Your task to perform on an android device: turn on wifi Image 0: 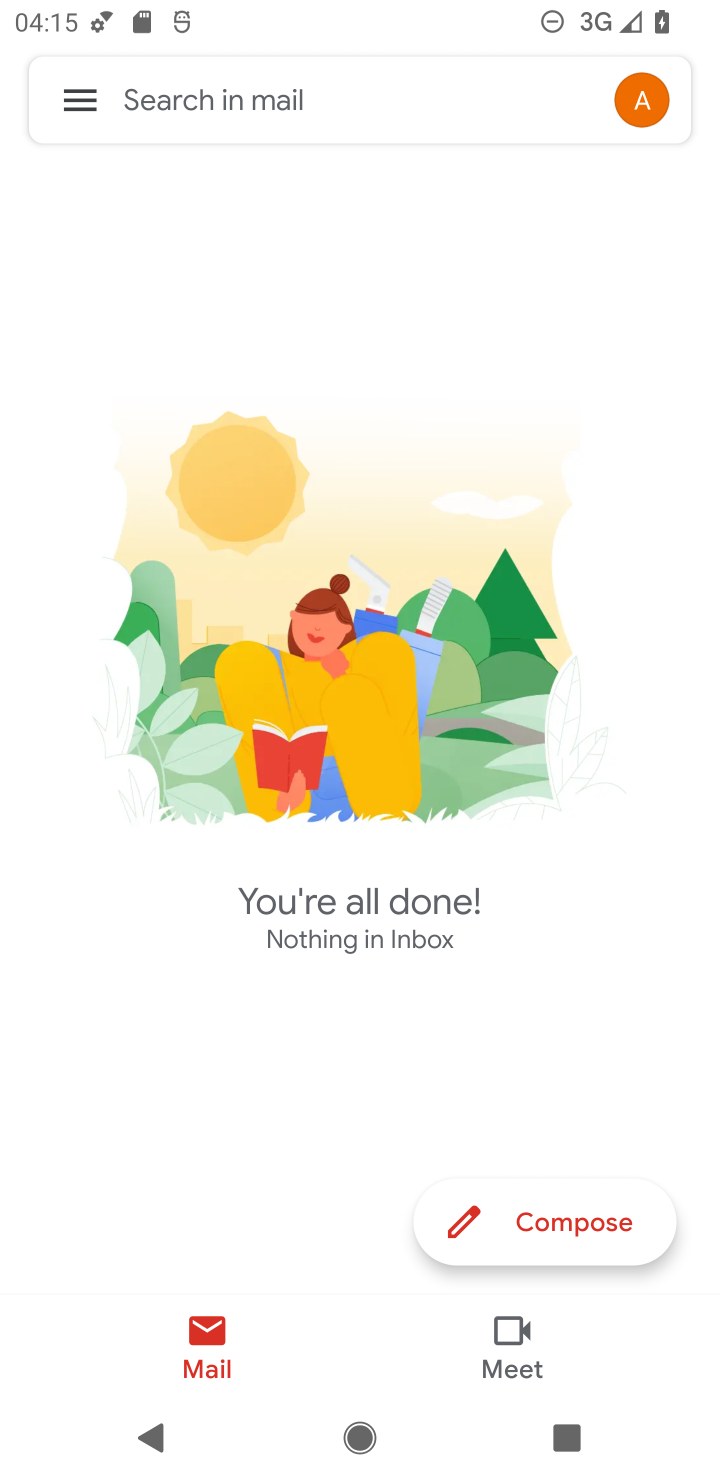
Step 0: press home button
Your task to perform on an android device: turn on wifi Image 1: 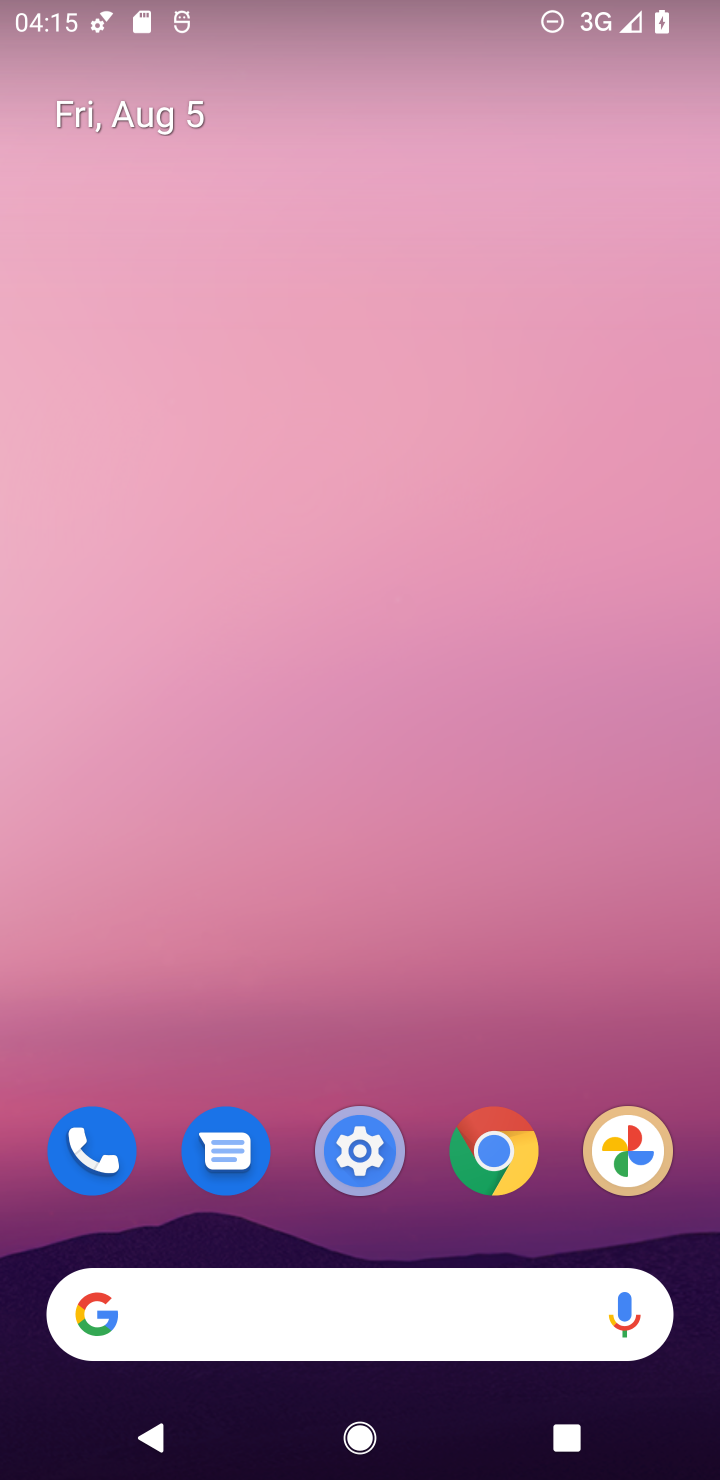
Step 1: click (355, 1123)
Your task to perform on an android device: turn on wifi Image 2: 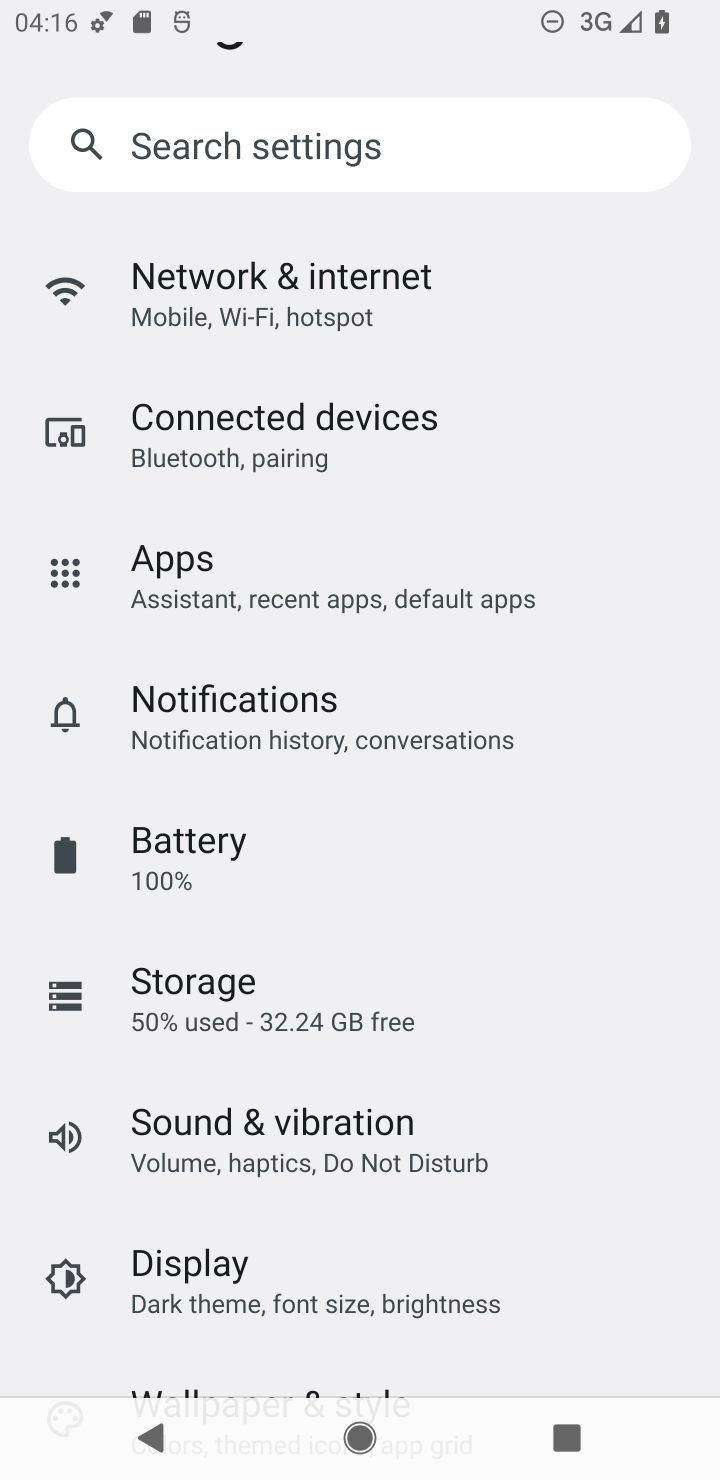
Step 2: click (141, 313)
Your task to perform on an android device: turn on wifi Image 3: 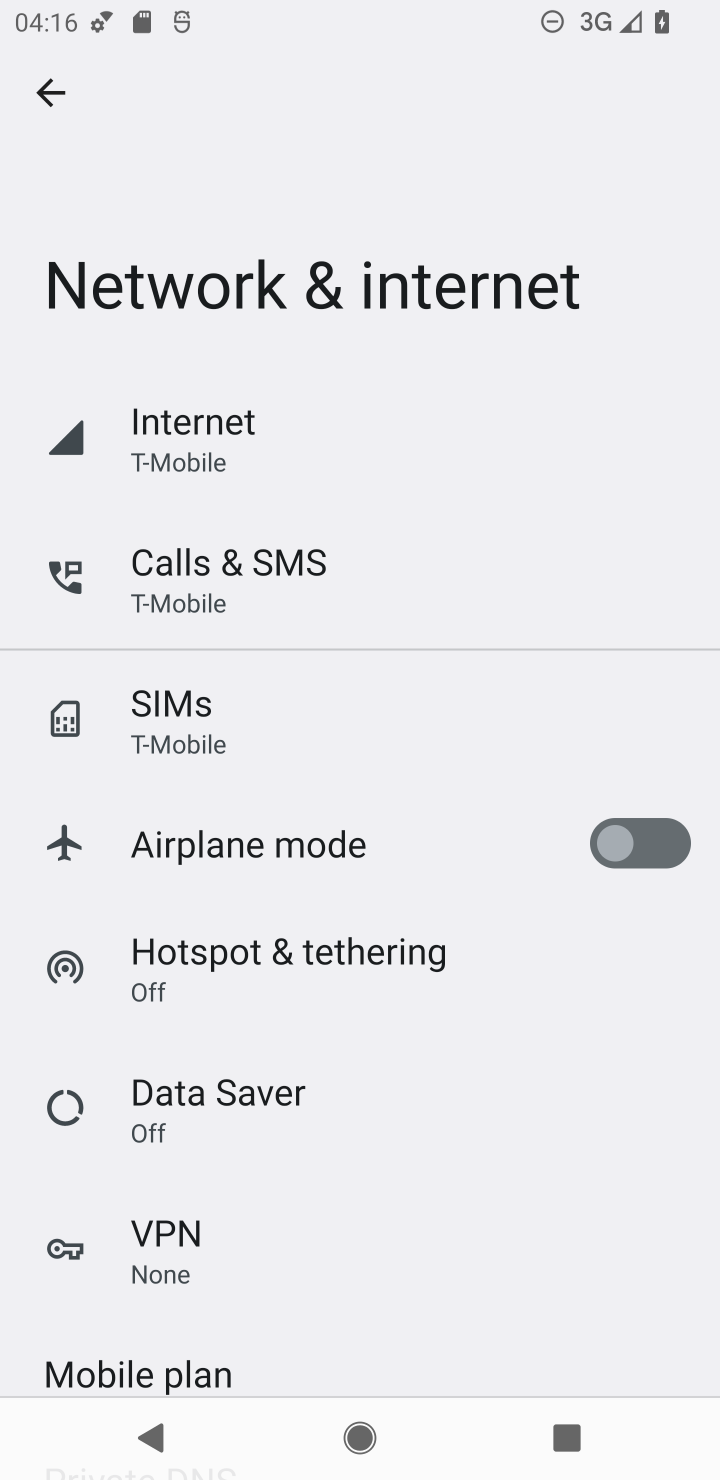
Step 3: click (385, 440)
Your task to perform on an android device: turn on wifi Image 4: 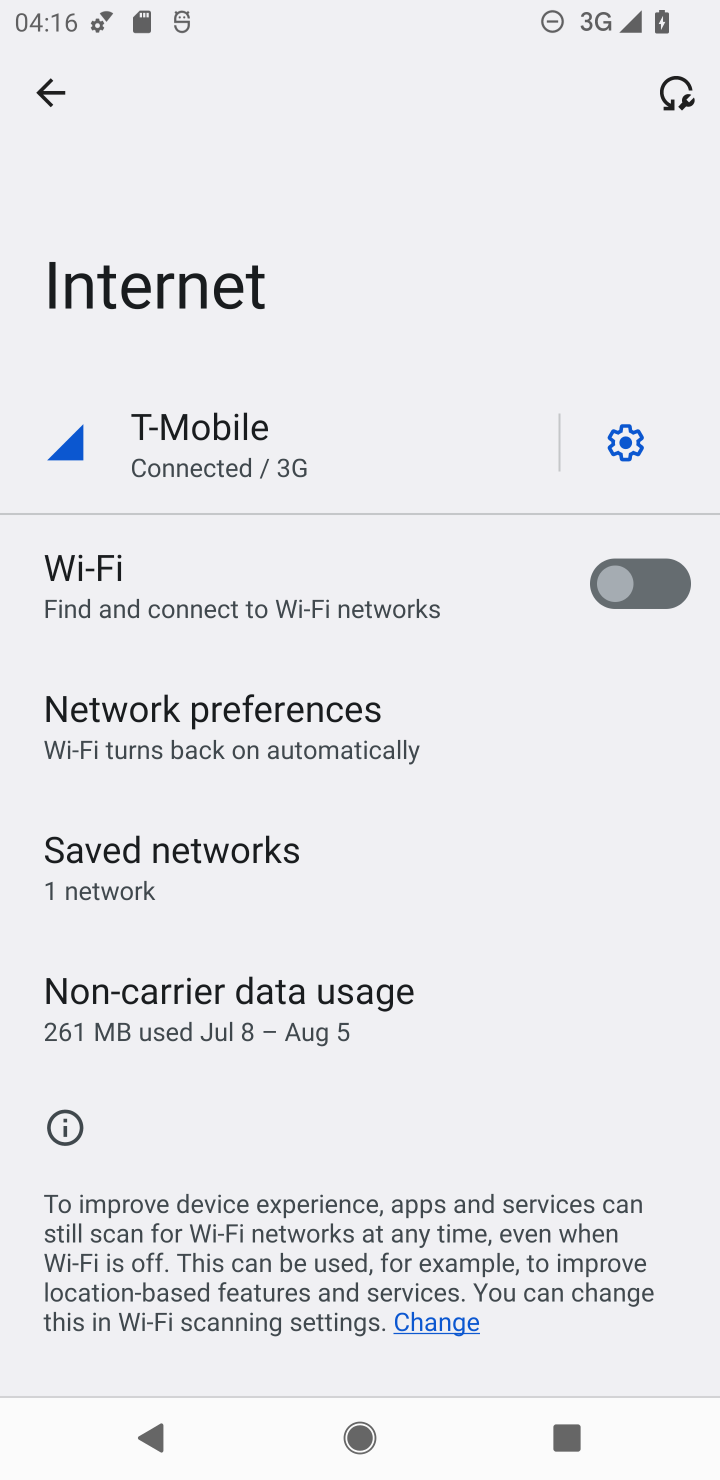
Step 4: click (624, 570)
Your task to perform on an android device: turn on wifi Image 5: 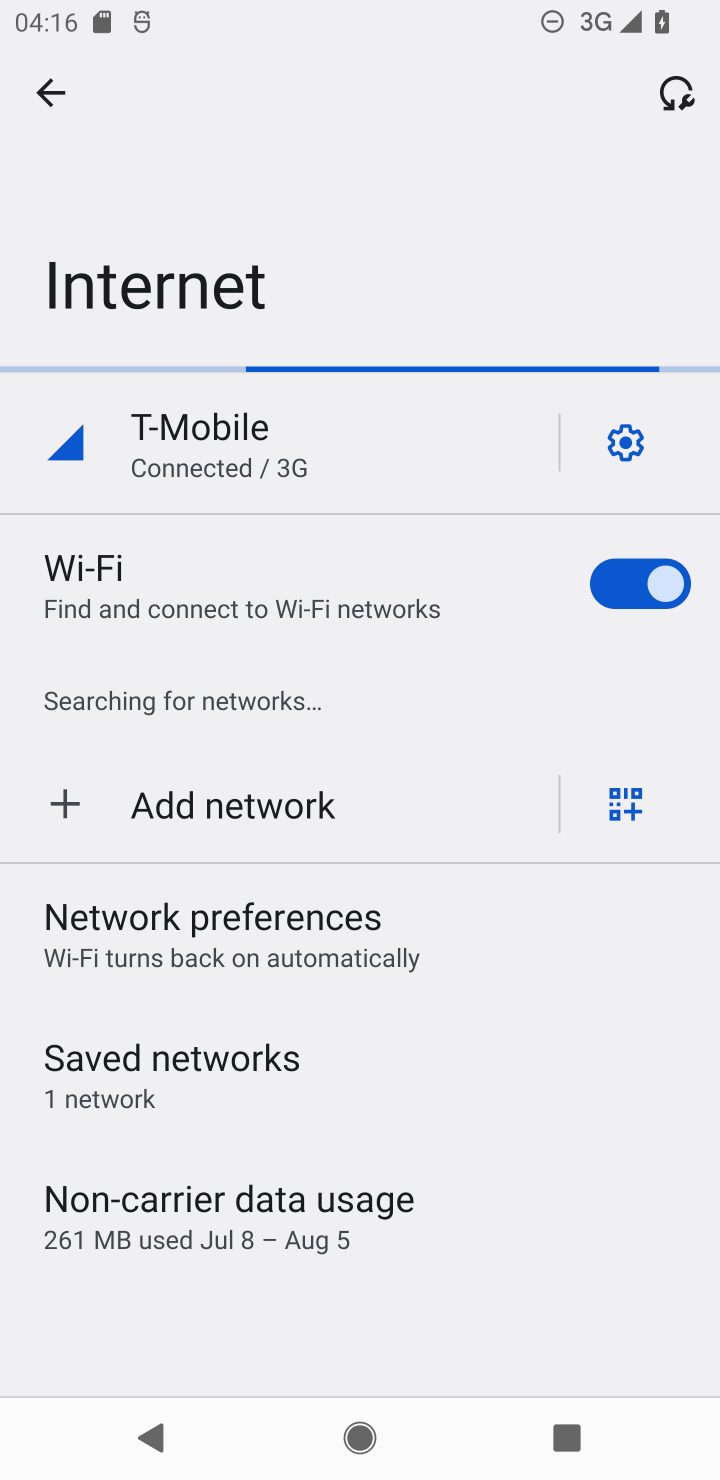
Step 5: task complete